Your task to perform on an android device: Go to network settings Image 0: 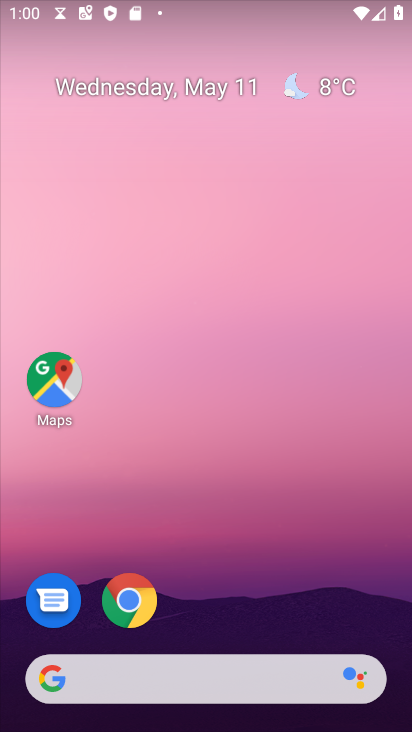
Step 0: drag from (290, 584) to (278, 75)
Your task to perform on an android device: Go to network settings Image 1: 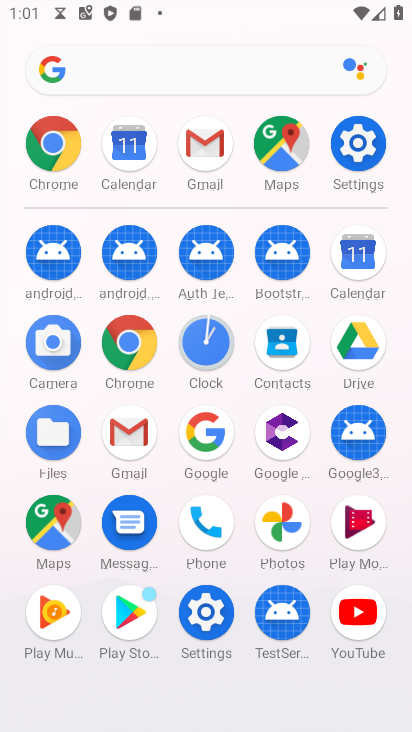
Step 1: click (356, 153)
Your task to perform on an android device: Go to network settings Image 2: 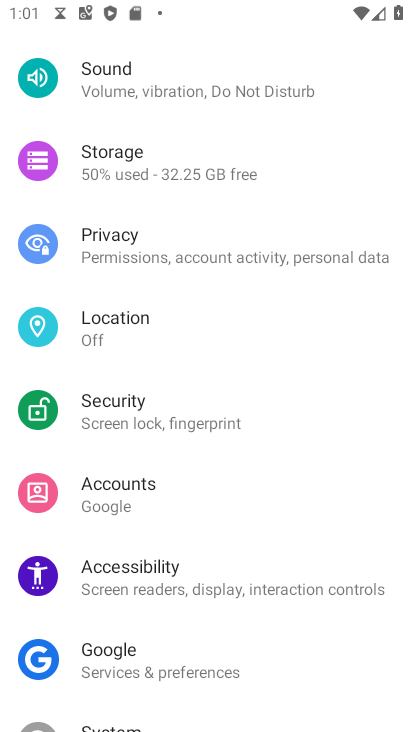
Step 2: drag from (233, 147) to (233, 642)
Your task to perform on an android device: Go to network settings Image 3: 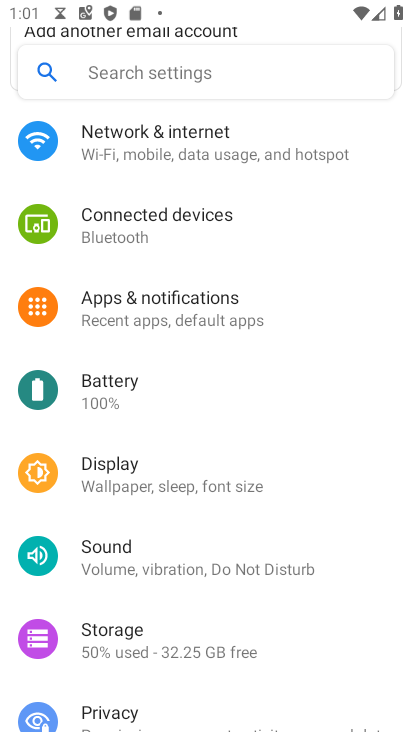
Step 3: click (230, 127)
Your task to perform on an android device: Go to network settings Image 4: 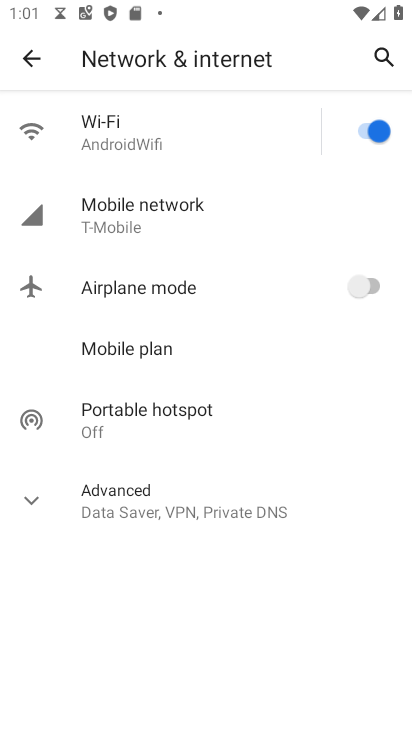
Step 4: task complete